Your task to perform on an android device: Open ESPN.com Image 0: 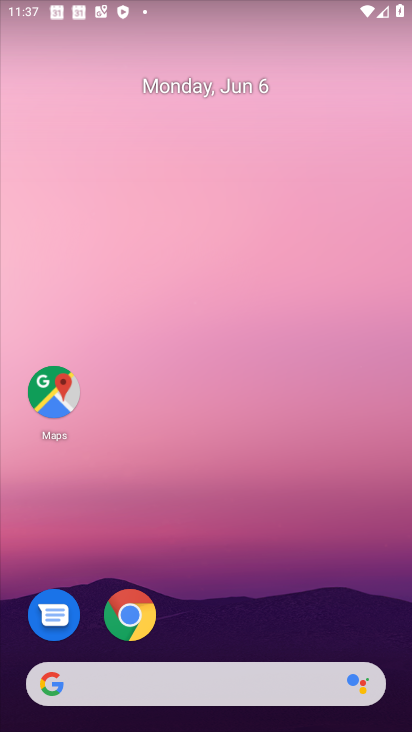
Step 0: click (290, 680)
Your task to perform on an android device: Open ESPN.com Image 1: 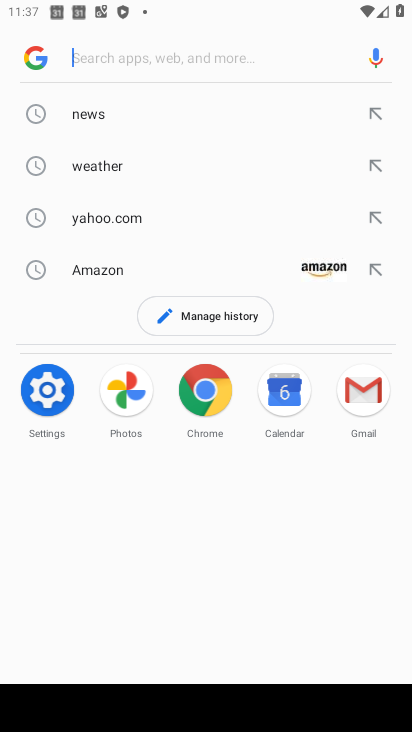
Step 1: type "espn.com"
Your task to perform on an android device: Open ESPN.com Image 2: 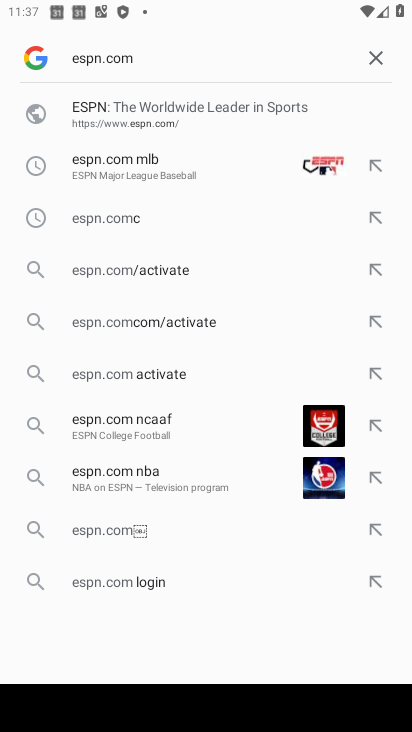
Step 2: click (157, 113)
Your task to perform on an android device: Open ESPN.com Image 3: 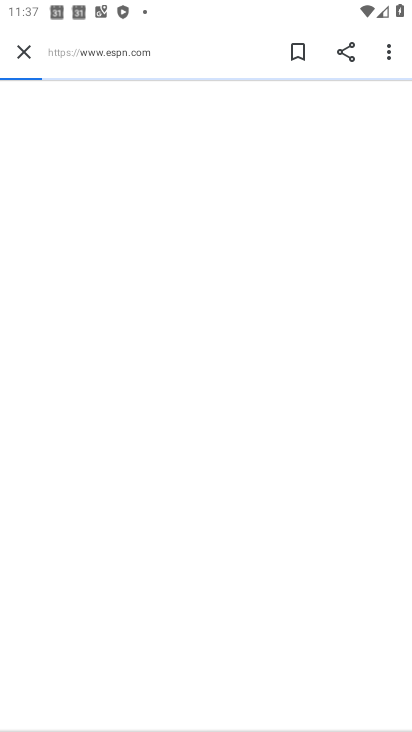
Step 3: task complete